Your task to perform on an android device: Check the news Image 0: 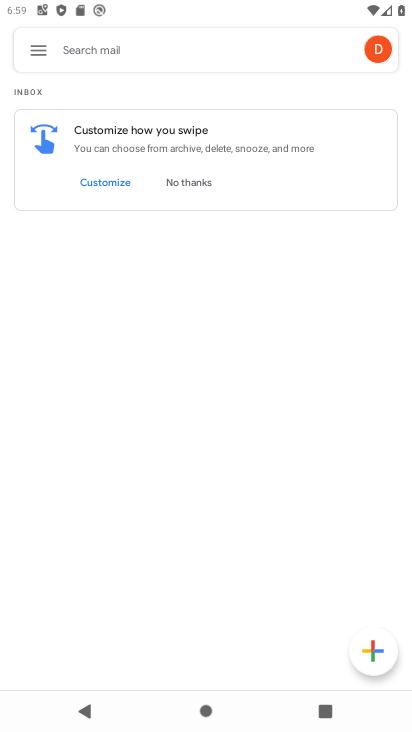
Step 0: press home button
Your task to perform on an android device: Check the news Image 1: 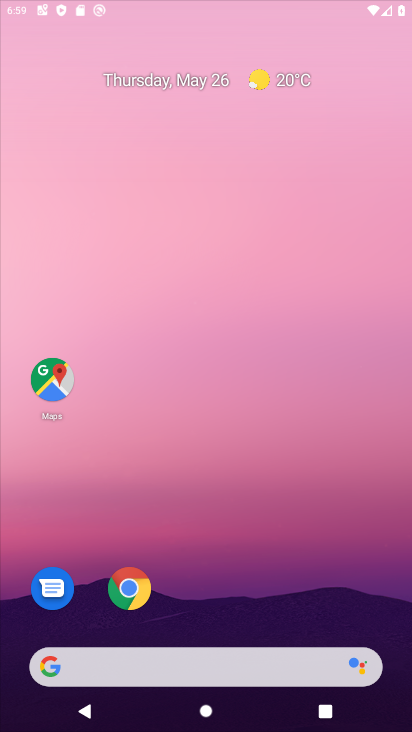
Step 1: drag from (336, 516) to (151, 37)
Your task to perform on an android device: Check the news Image 2: 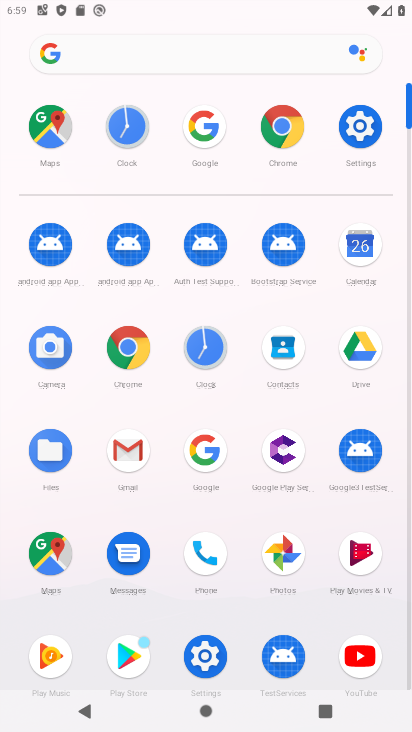
Step 2: click (194, 459)
Your task to perform on an android device: Check the news Image 3: 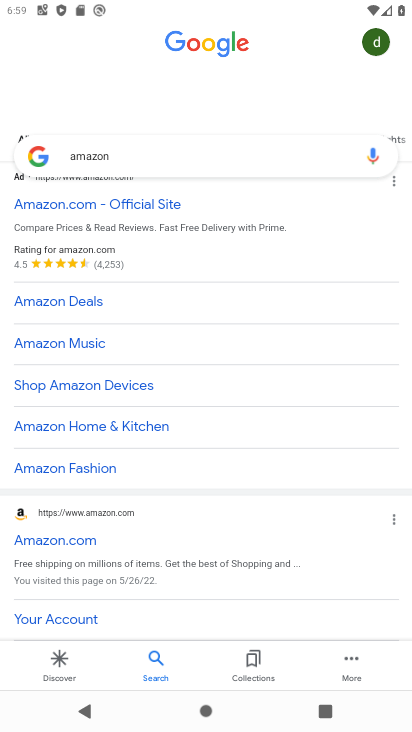
Step 3: press back button
Your task to perform on an android device: Check the news Image 4: 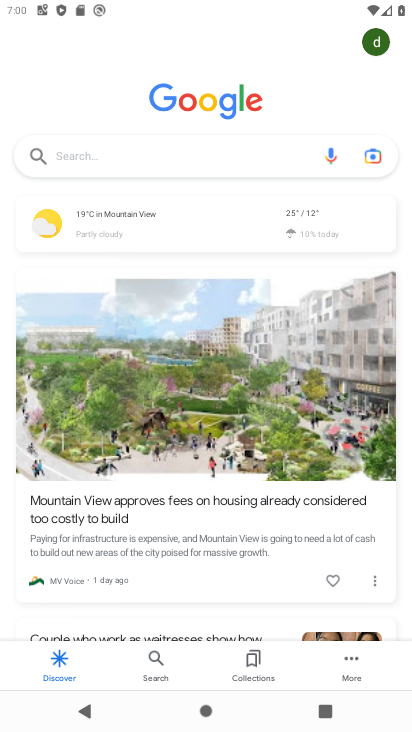
Step 4: click (84, 137)
Your task to perform on an android device: Check the news Image 5: 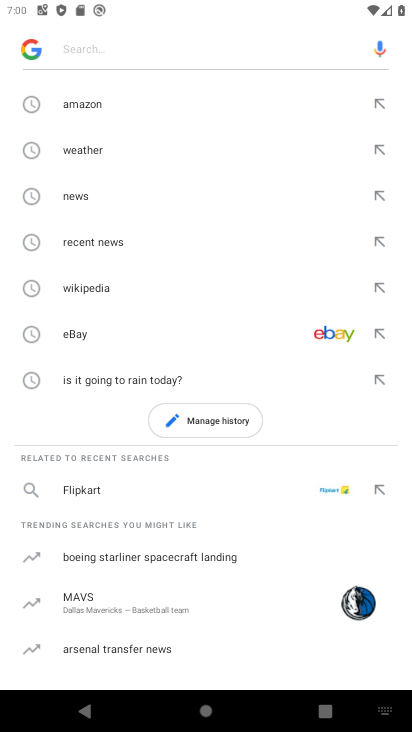
Step 5: click (104, 204)
Your task to perform on an android device: Check the news Image 6: 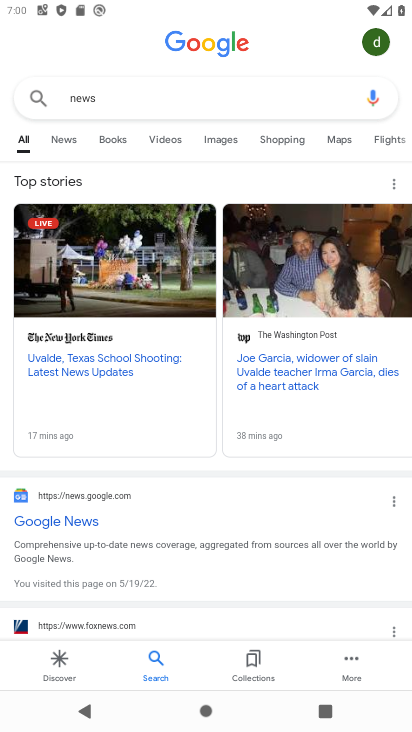
Step 6: task complete